Your task to perform on an android device: turn off wifi Image 0: 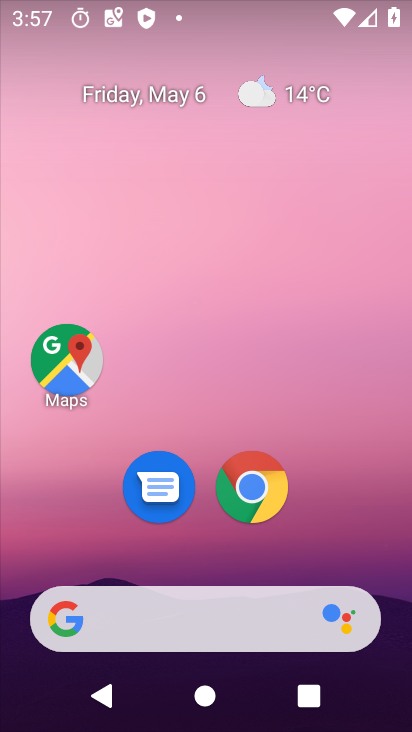
Step 0: drag from (324, 504) to (234, 9)
Your task to perform on an android device: turn off wifi Image 1: 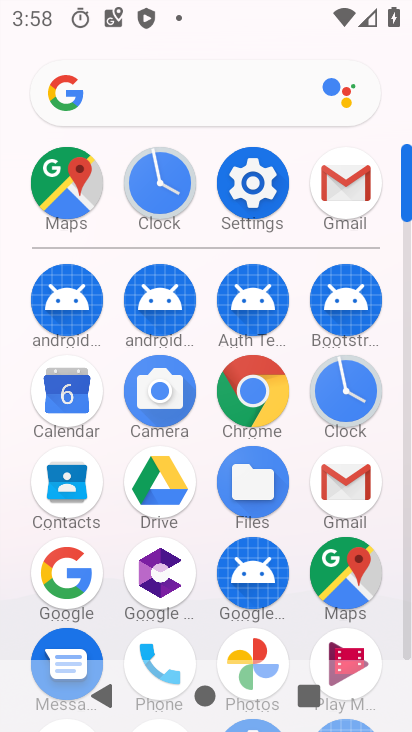
Step 1: click (256, 188)
Your task to perform on an android device: turn off wifi Image 2: 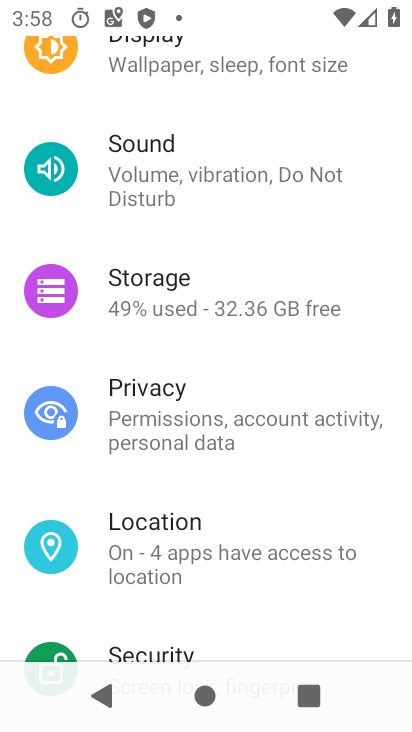
Step 2: drag from (193, 201) to (364, 634)
Your task to perform on an android device: turn off wifi Image 3: 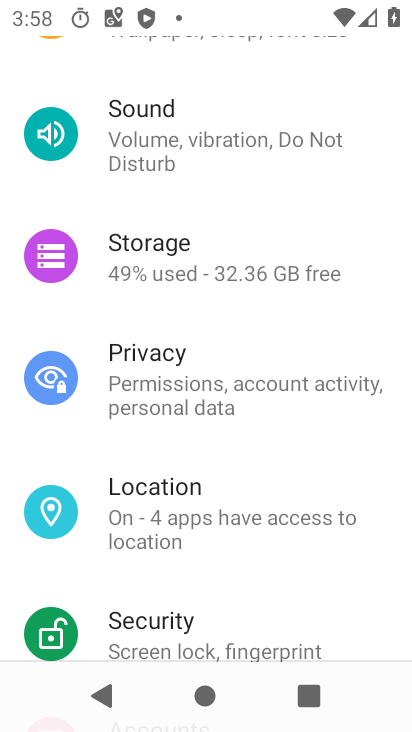
Step 3: drag from (240, 183) to (228, 712)
Your task to perform on an android device: turn off wifi Image 4: 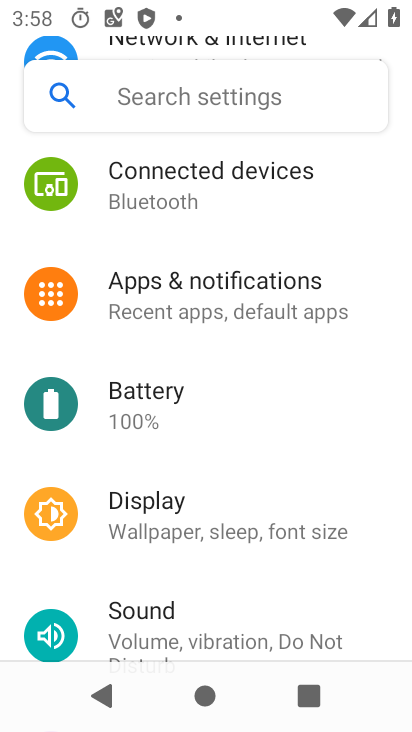
Step 4: drag from (222, 236) to (324, 639)
Your task to perform on an android device: turn off wifi Image 5: 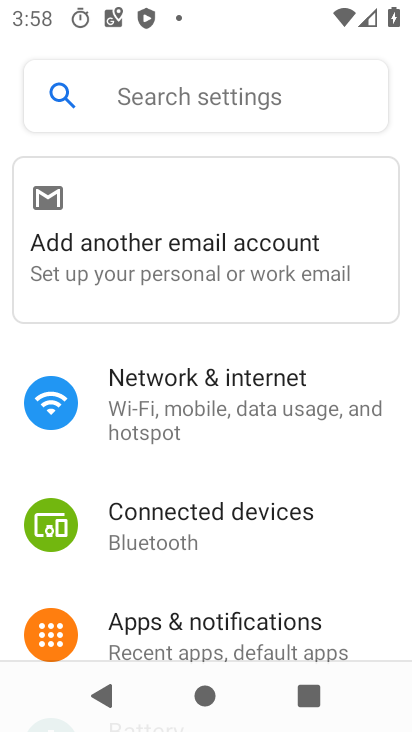
Step 5: click (166, 390)
Your task to perform on an android device: turn off wifi Image 6: 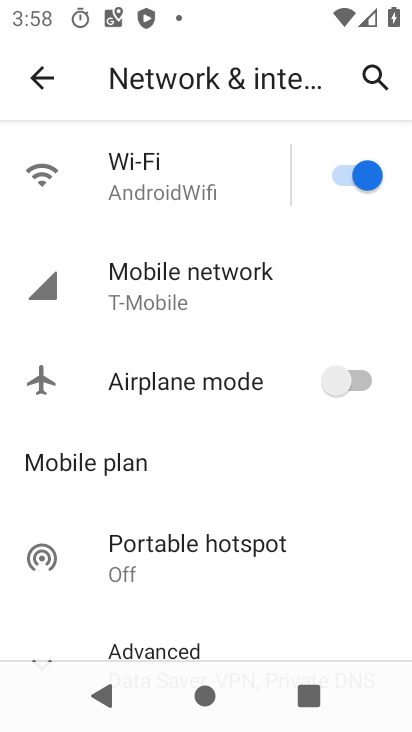
Step 6: click (379, 178)
Your task to perform on an android device: turn off wifi Image 7: 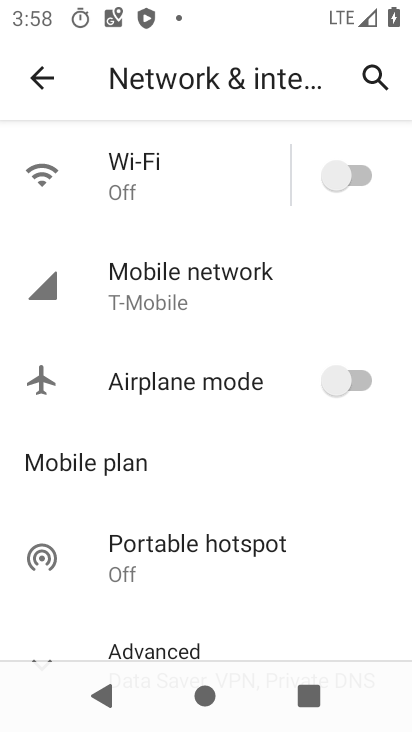
Step 7: task complete